Your task to perform on an android device: star an email in the gmail app Image 0: 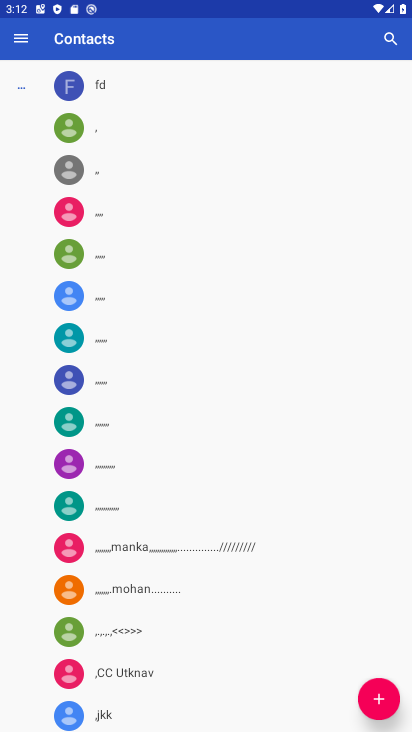
Step 0: press home button
Your task to perform on an android device: star an email in the gmail app Image 1: 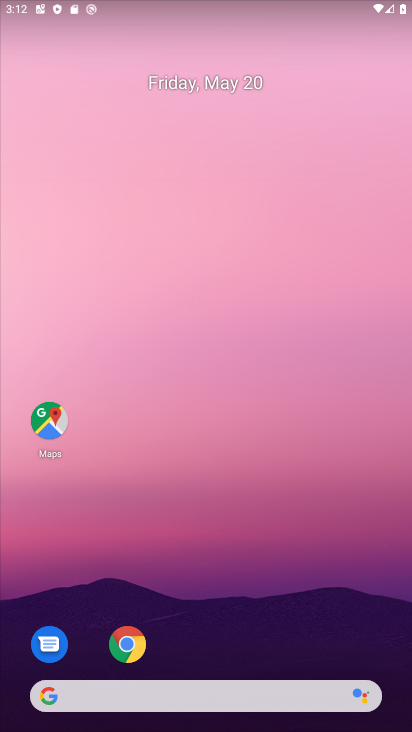
Step 1: drag from (292, 623) to (165, 15)
Your task to perform on an android device: star an email in the gmail app Image 2: 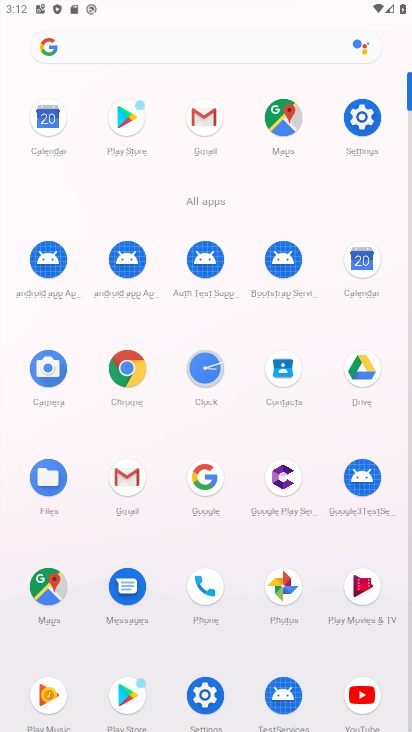
Step 2: click (205, 180)
Your task to perform on an android device: star an email in the gmail app Image 3: 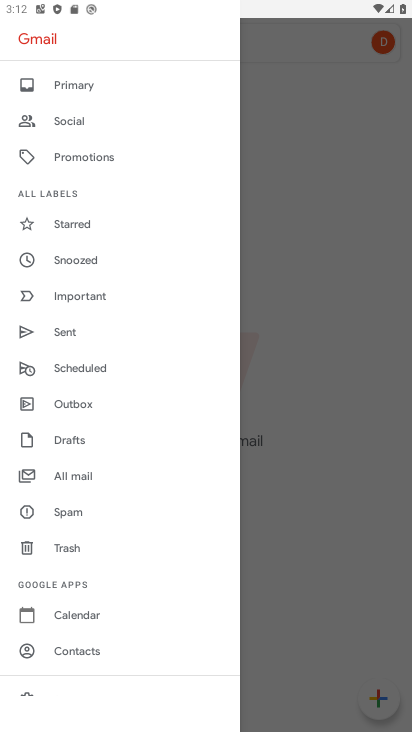
Step 3: click (107, 464)
Your task to perform on an android device: star an email in the gmail app Image 4: 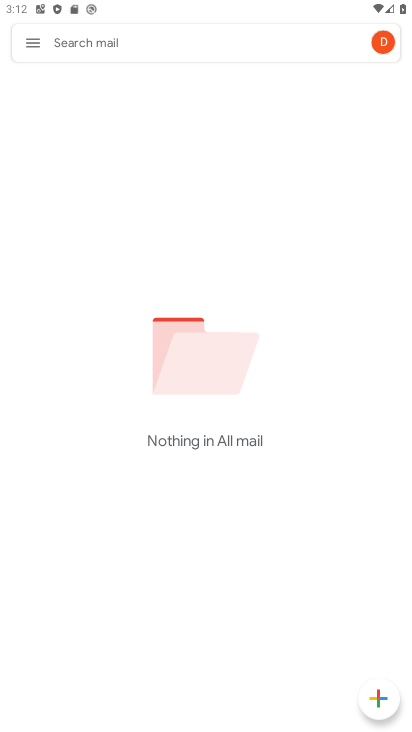
Step 4: task complete